Your task to perform on an android device: Open the stopwatch Image 0: 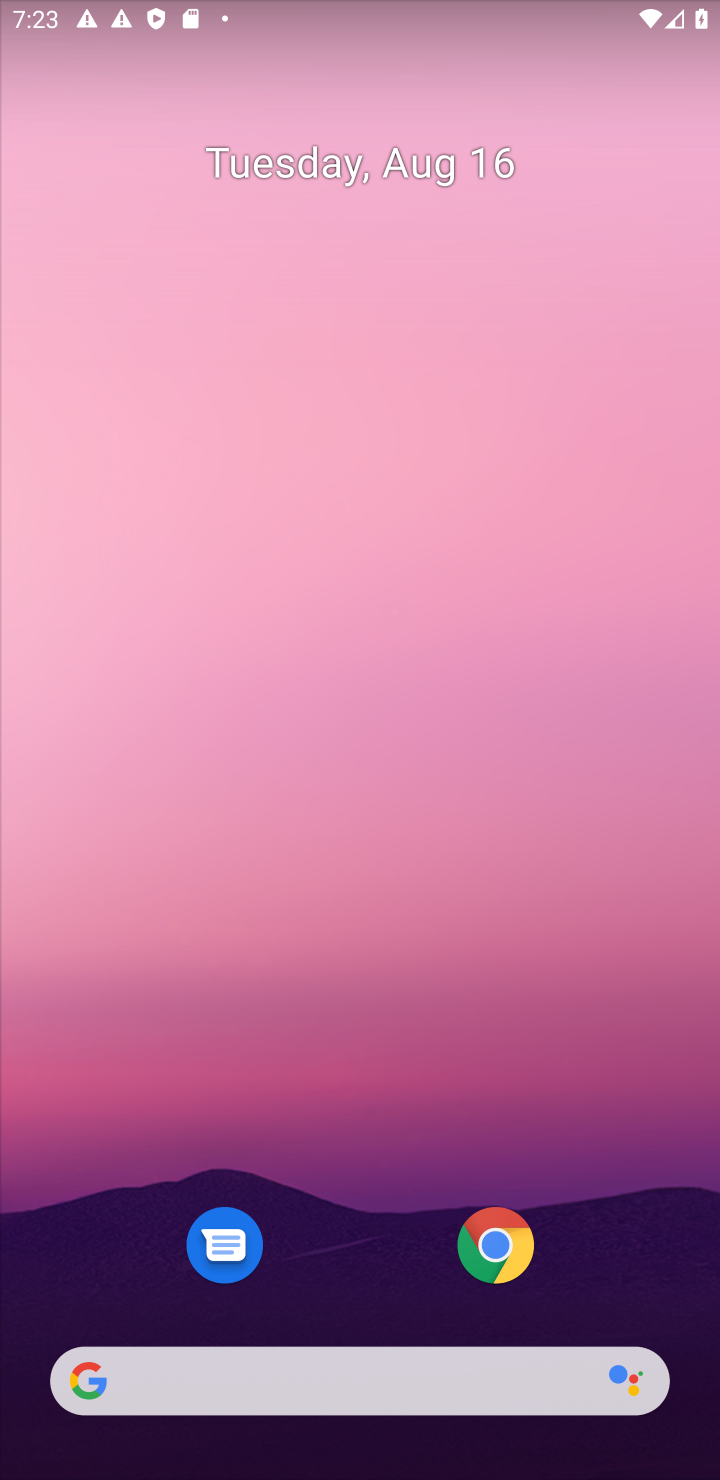
Step 0: press home button
Your task to perform on an android device: Open the stopwatch Image 1: 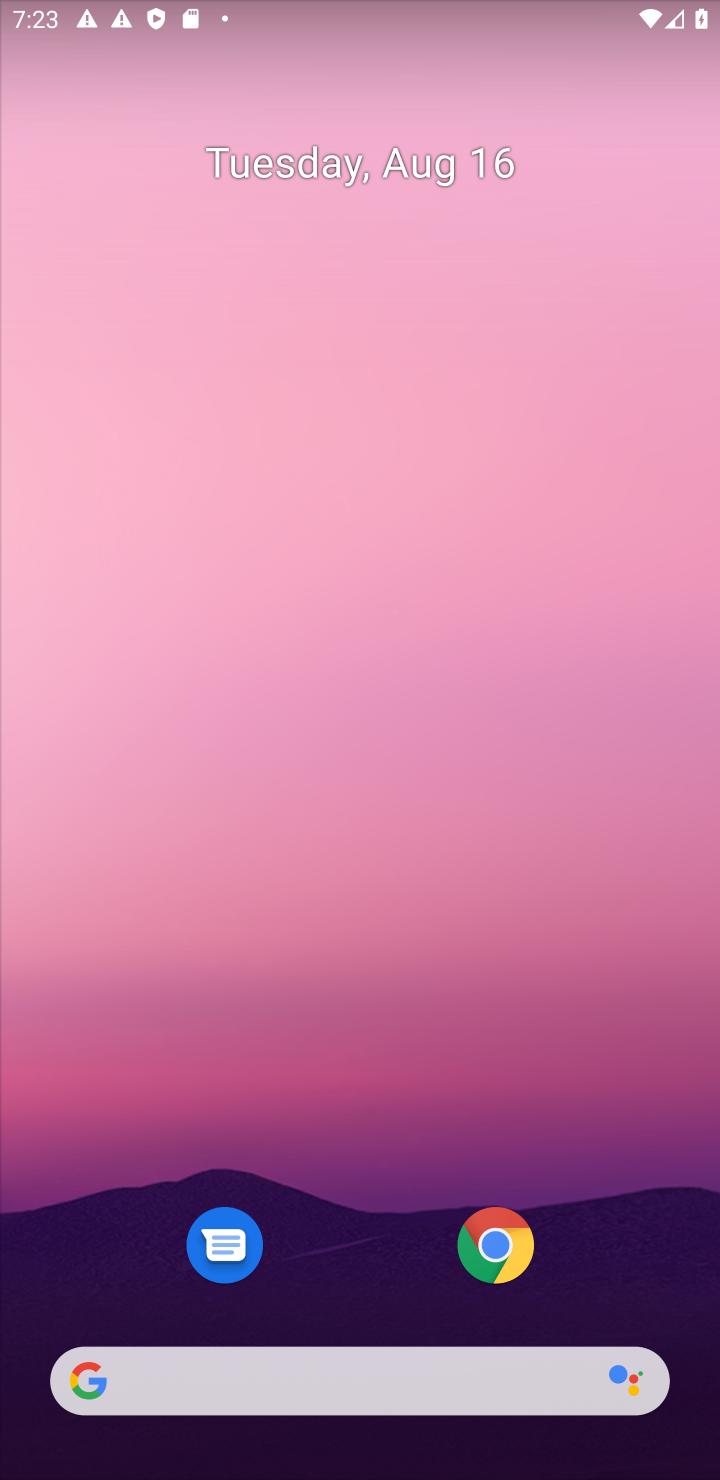
Step 1: drag from (352, 1119) to (296, 275)
Your task to perform on an android device: Open the stopwatch Image 2: 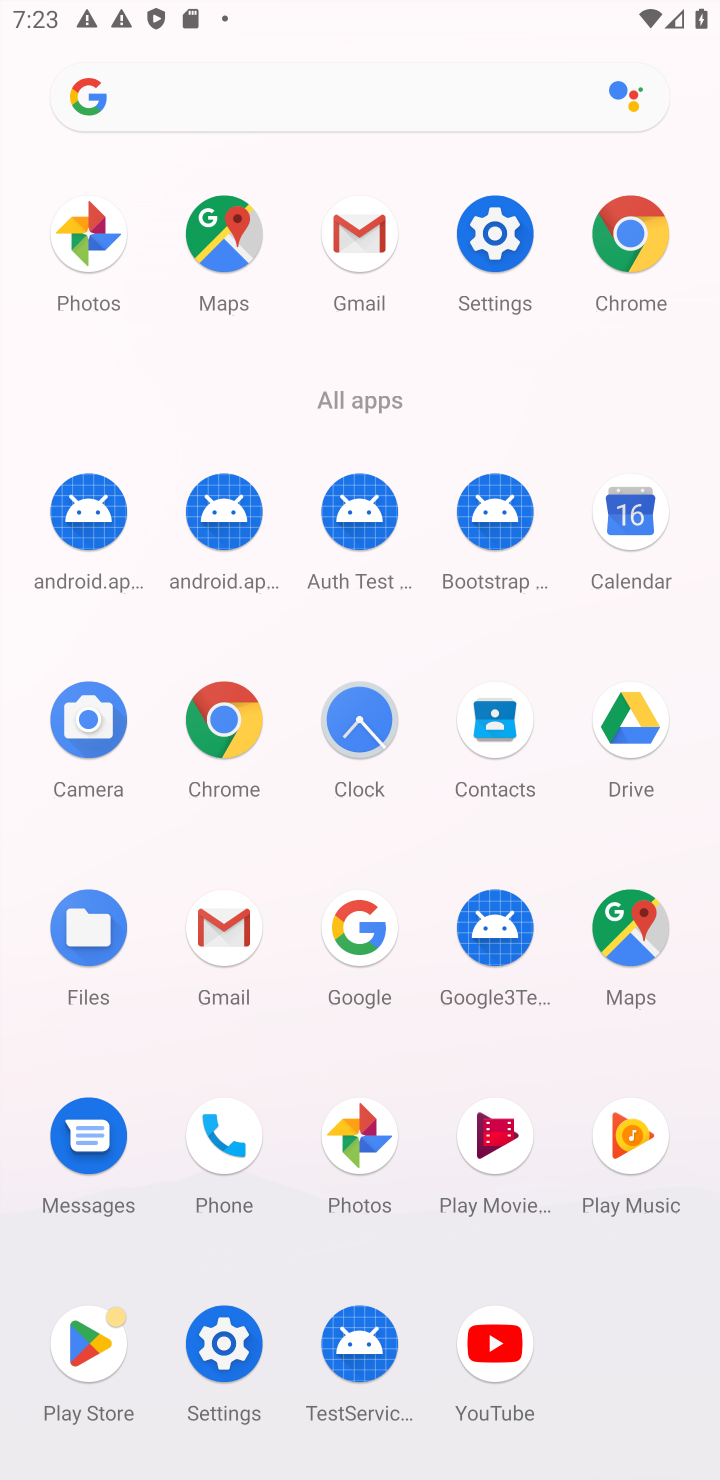
Step 2: click (348, 720)
Your task to perform on an android device: Open the stopwatch Image 3: 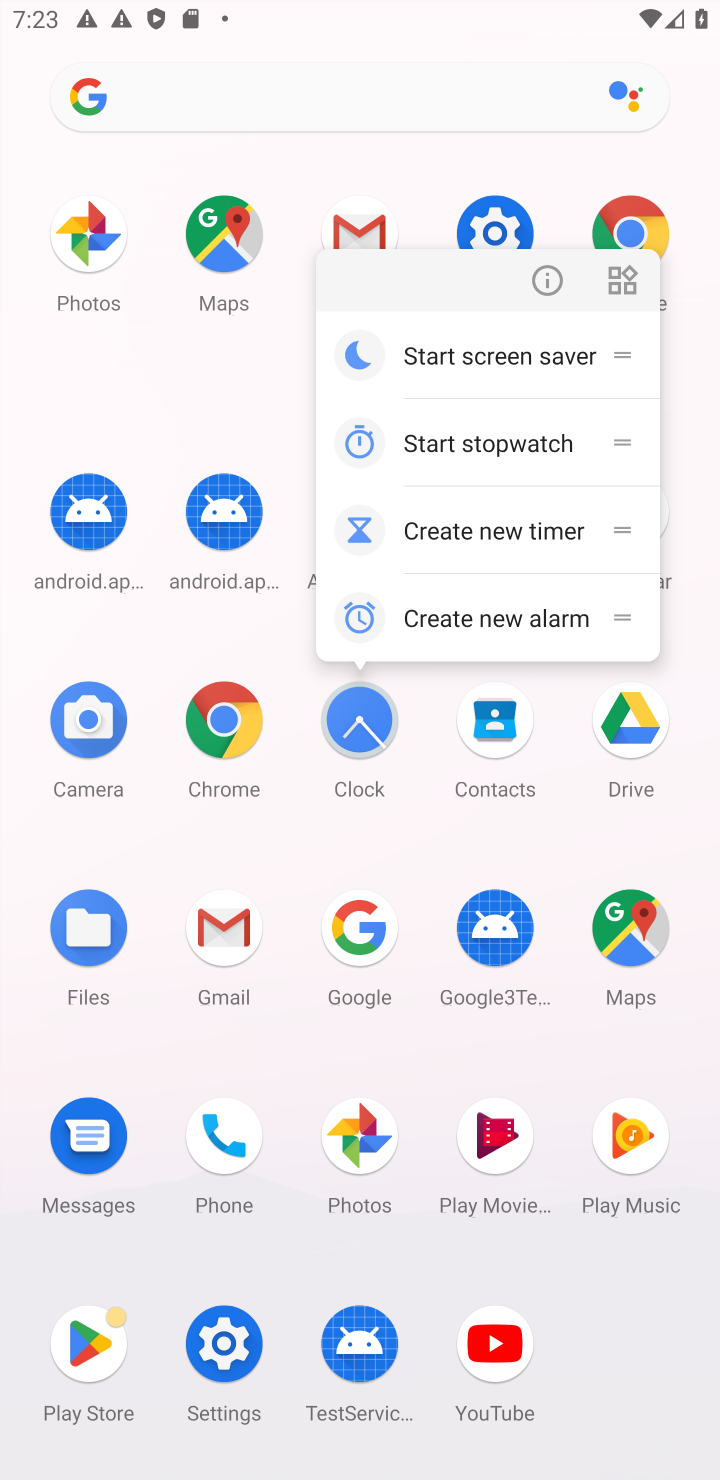
Step 3: click (348, 720)
Your task to perform on an android device: Open the stopwatch Image 4: 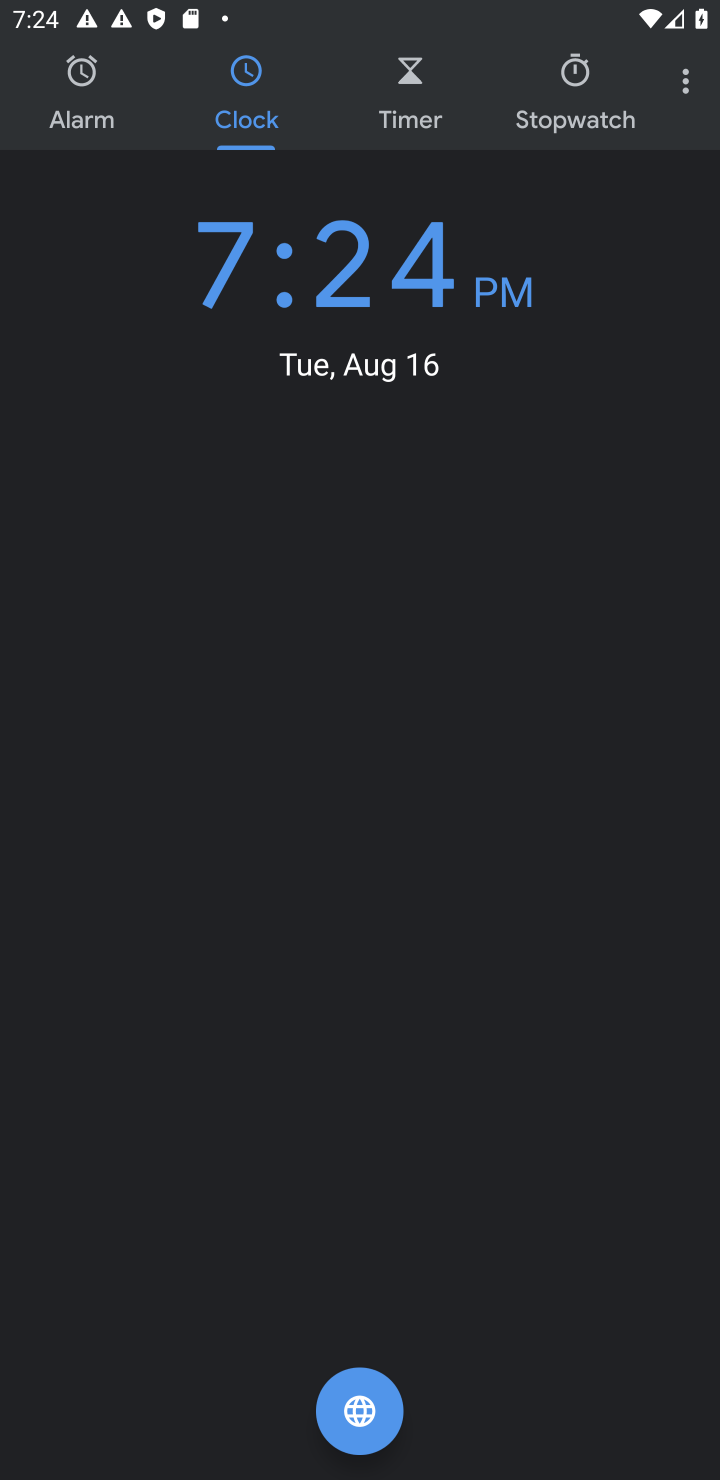
Step 4: click (577, 91)
Your task to perform on an android device: Open the stopwatch Image 5: 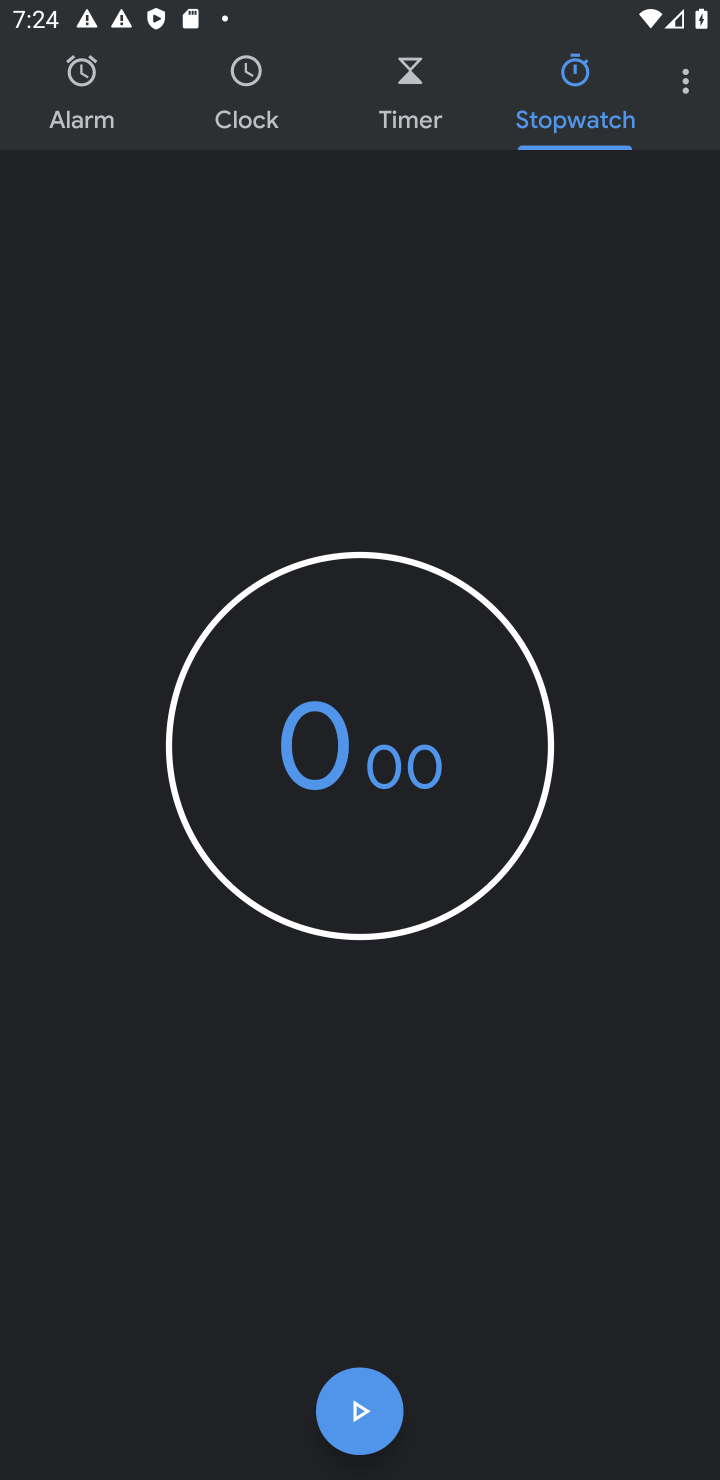
Step 5: click (346, 1414)
Your task to perform on an android device: Open the stopwatch Image 6: 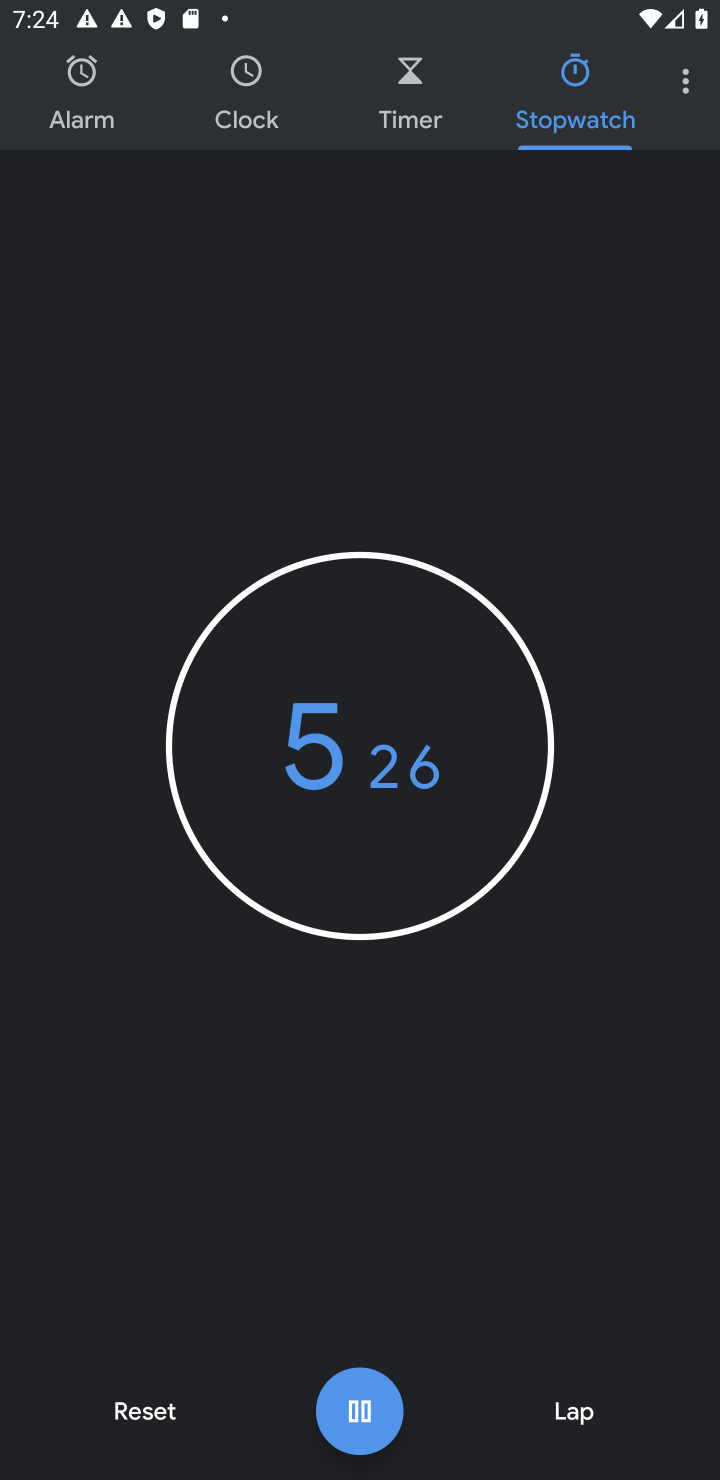
Step 6: click (367, 1403)
Your task to perform on an android device: Open the stopwatch Image 7: 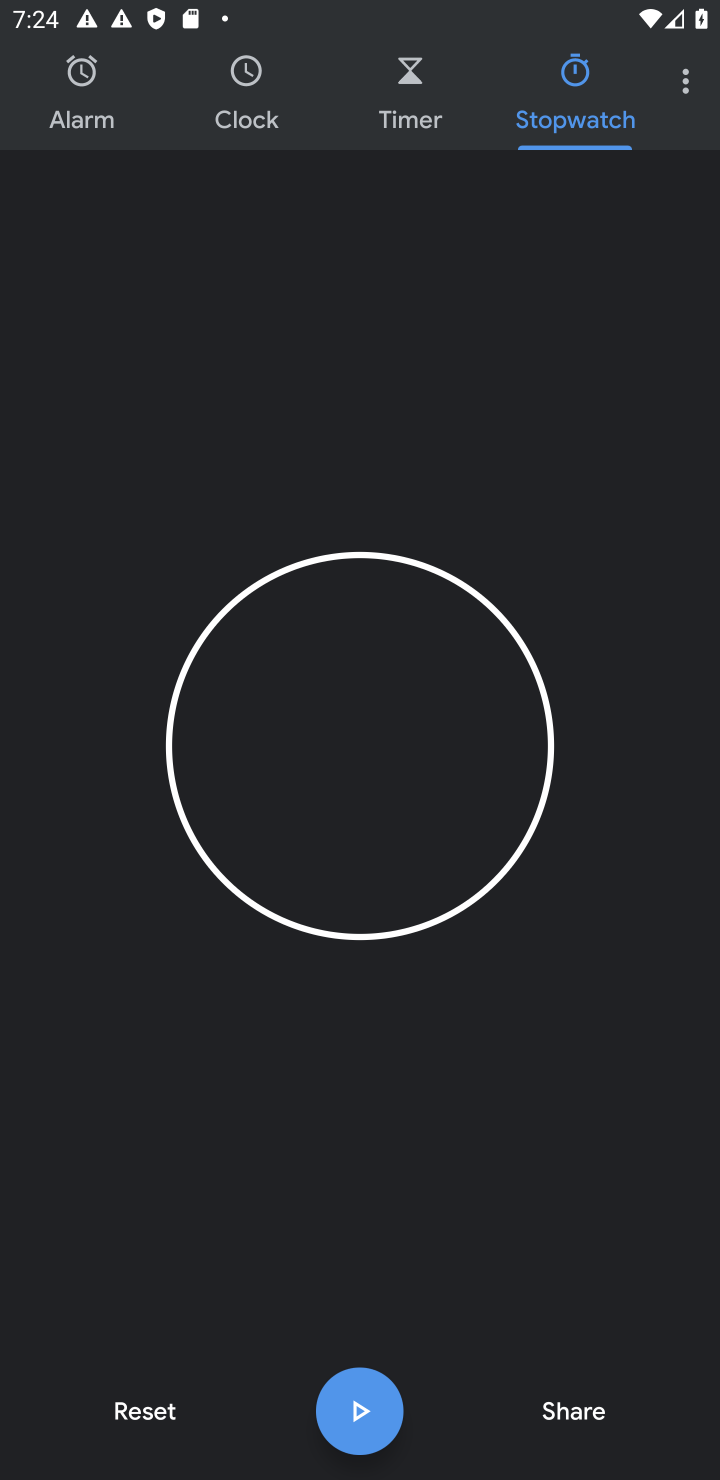
Step 7: task complete